Your task to perform on an android device: turn off data saver in the chrome app Image 0: 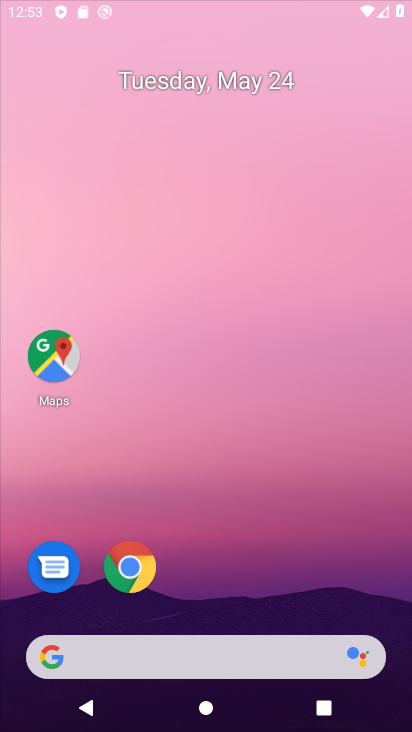
Step 0: drag from (240, 352) to (410, 4)
Your task to perform on an android device: turn off data saver in the chrome app Image 1: 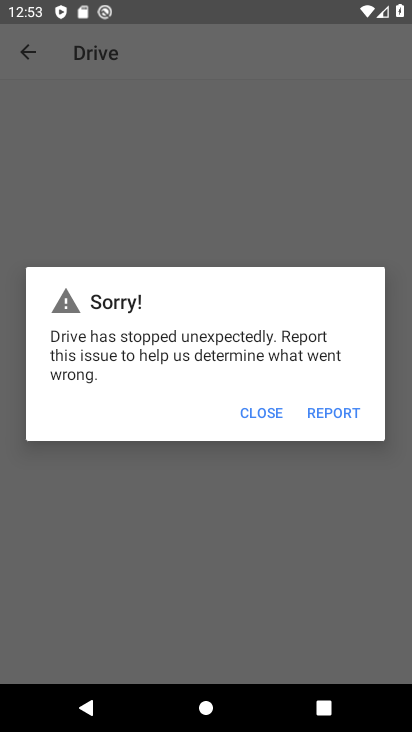
Step 1: press home button
Your task to perform on an android device: turn off data saver in the chrome app Image 2: 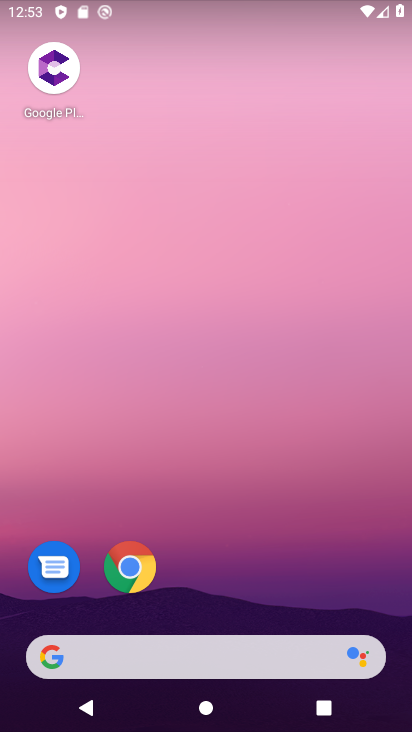
Step 2: drag from (195, 571) to (235, 5)
Your task to perform on an android device: turn off data saver in the chrome app Image 3: 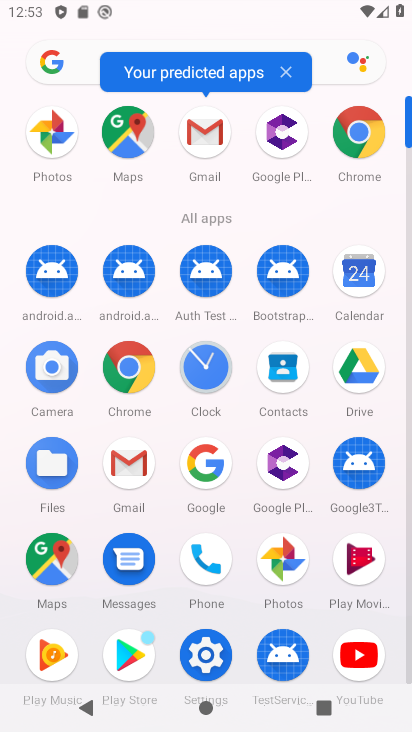
Step 3: click (127, 369)
Your task to perform on an android device: turn off data saver in the chrome app Image 4: 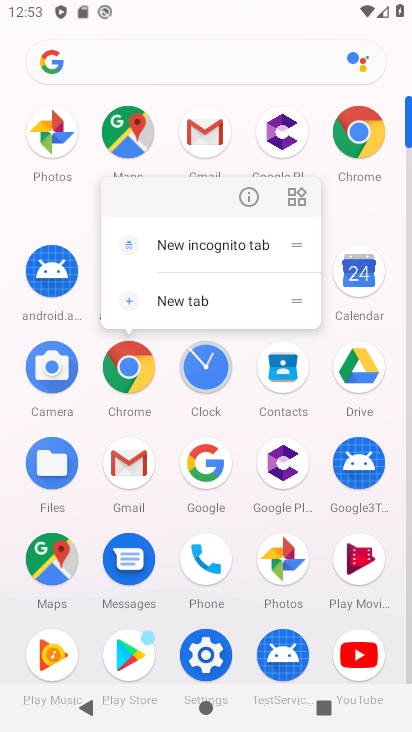
Step 4: click (132, 379)
Your task to perform on an android device: turn off data saver in the chrome app Image 5: 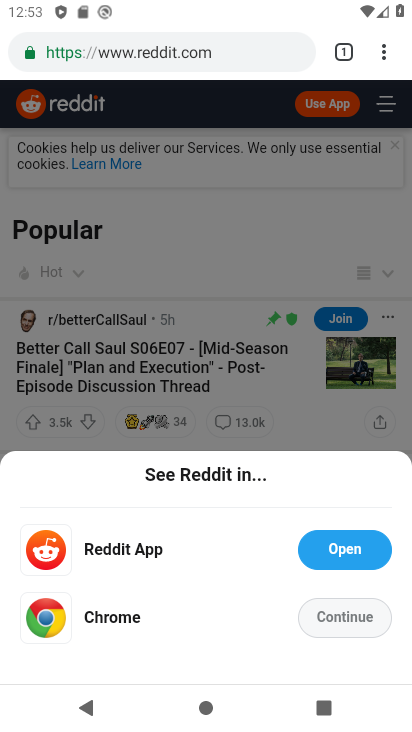
Step 5: click (385, 47)
Your task to perform on an android device: turn off data saver in the chrome app Image 6: 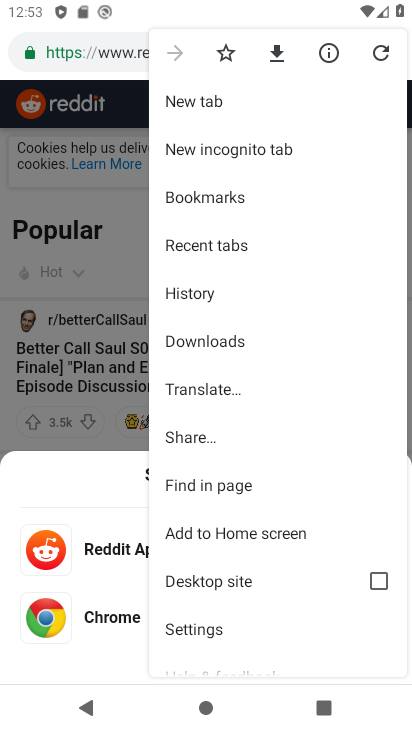
Step 6: click (198, 618)
Your task to perform on an android device: turn off data saver in the chrome app Image 7: 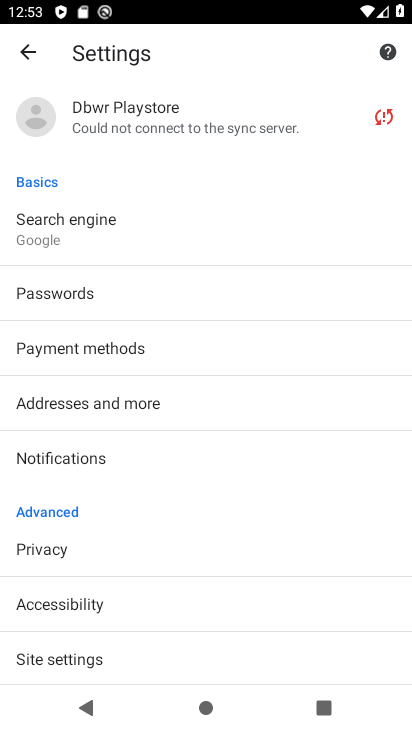
Step 7: drag from (110, 554) to (180, 233)
Your task to perform on an android device: turn off data saver in the chrome app Image 8: 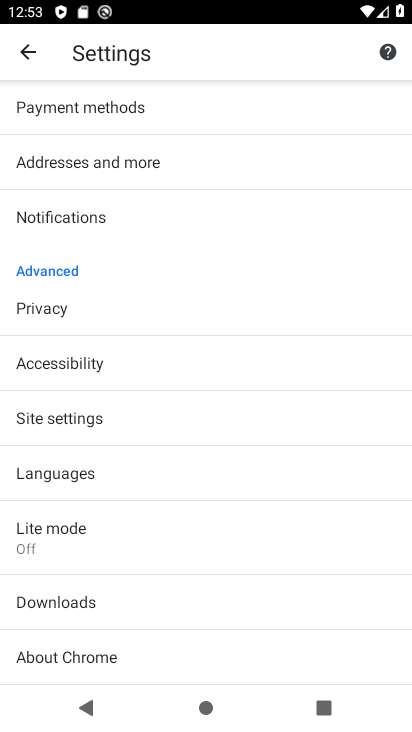
Step 8: click (77, 535)
Your task to perform on an android device: turn off data saver in the chrome app Image 9: 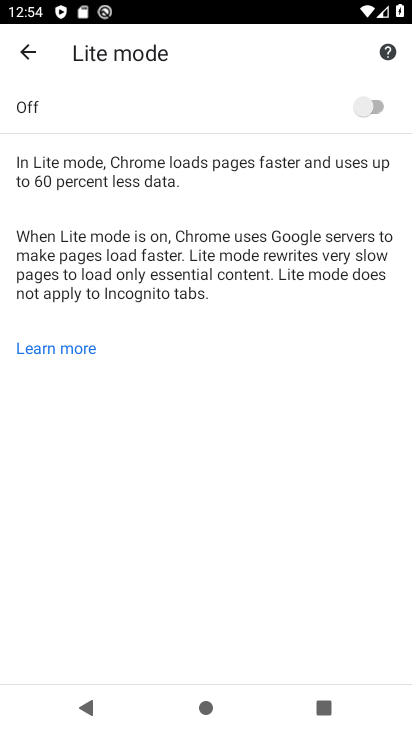
Step 9: task complete